Your task to perform on an android device: Open location settings Image 0: 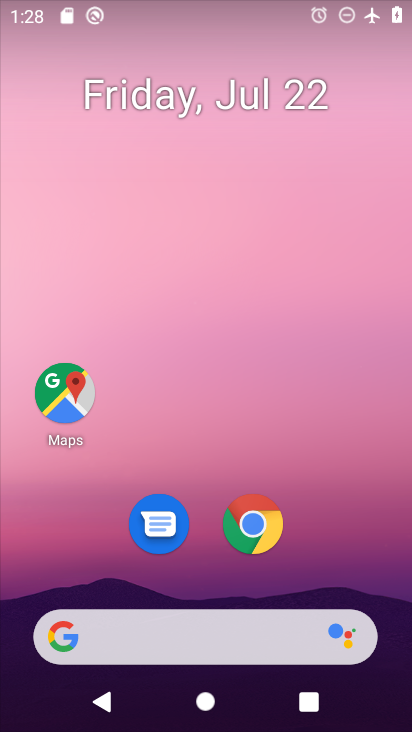
Step 0: drag from (345, 538) to (360, 33)
Your task to perform on an android device: Open location settings Image 1: 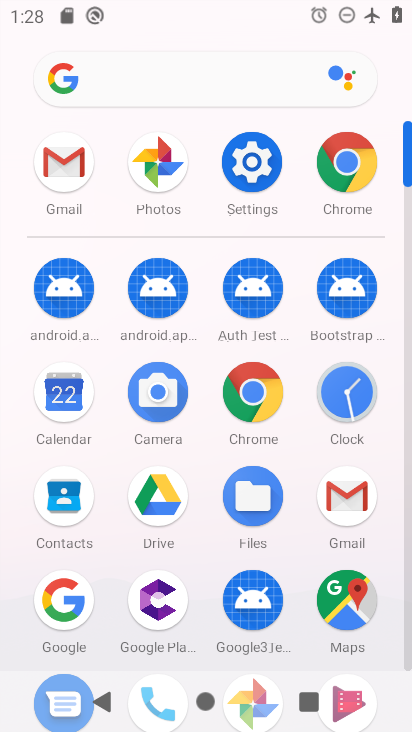
Step 1: click (257, 152)
Your task to perform on an android device: Open location settings Image 2: 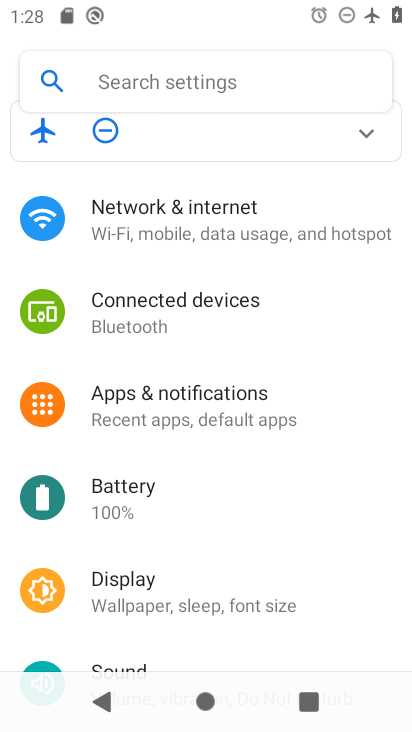
Step 2: drag from (224, 536) to (276, 37)
Your task to perform on an android device: Open location settings Image 3: 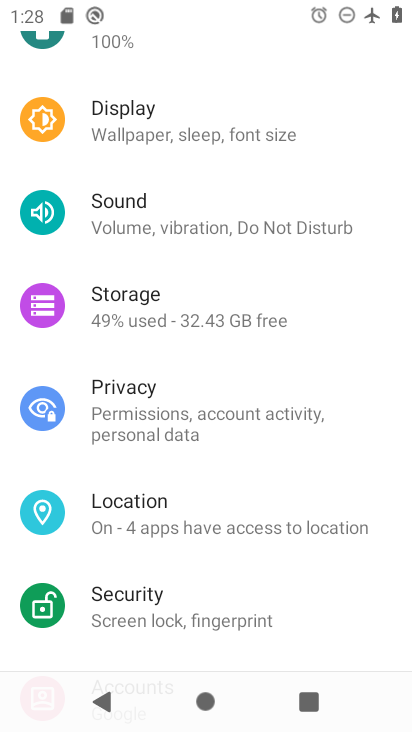
Step 3: click (201, 504)
Your task to perform on an android device: Open location settings Image 4: 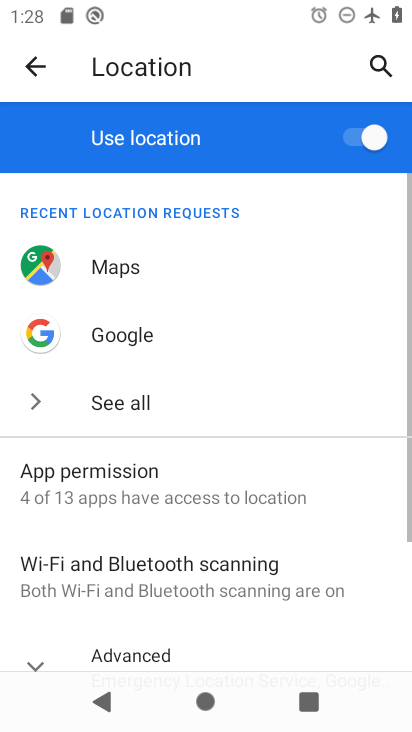
Step 4: task complete